Your task to perform on an android device: turn on bluetooth scan Image 0: 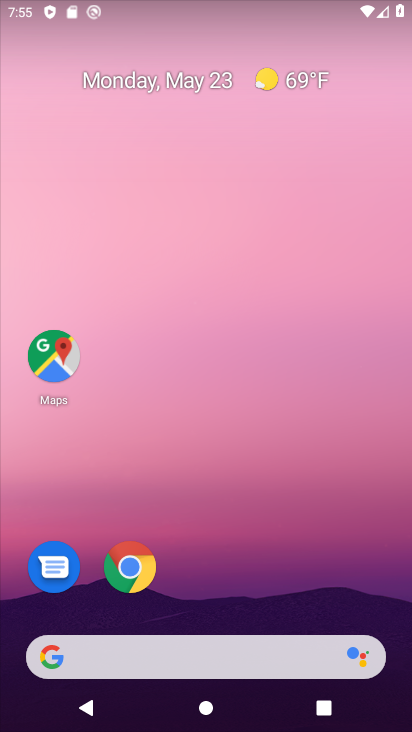
Step 0: drag from (206, 623) to (259, 64)
Your task to perform on an android device: turn on bluetooth scan Image 1: 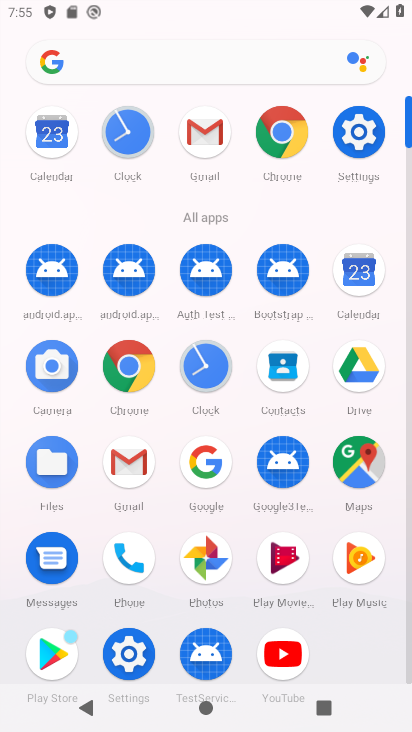
Step 1: click (124, 649)
Your task to perform on an android device: turn on bluetooth scan Image 2: 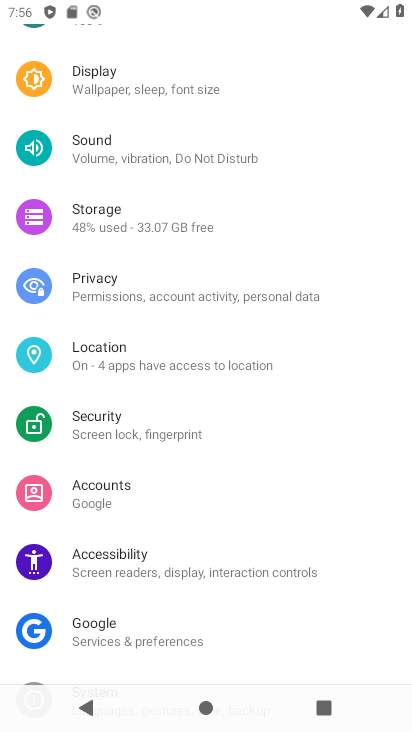
Step 2: click (136, 368)
Your task to perform on an android device: turn on bluetooth scan Image 3: 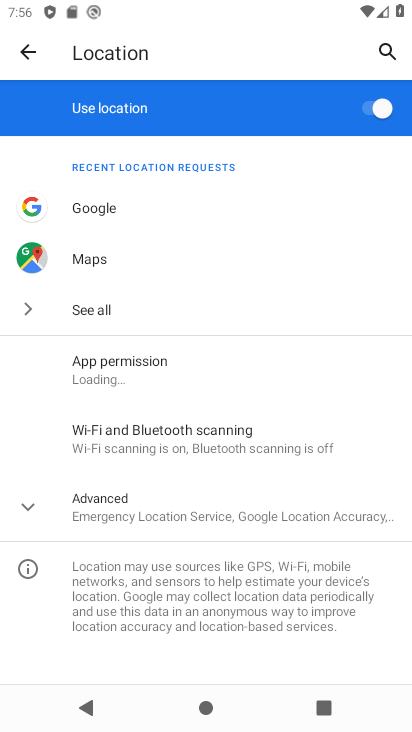
Step 3: click (152, 438)
Your task to perform on an android device: turn on bluetooth scan Image 4: 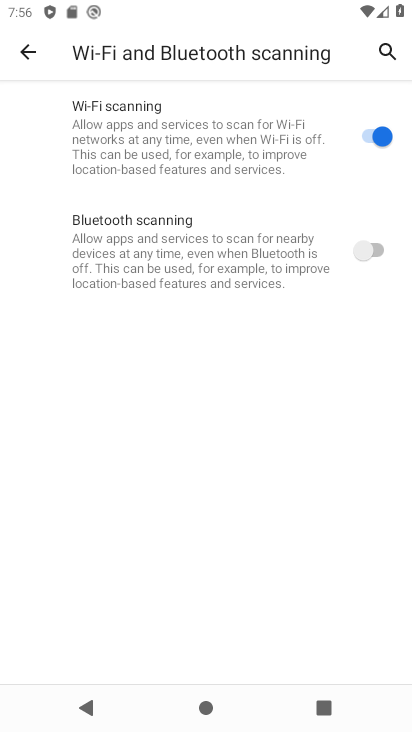
Step 4: click (347, 250)
Your task to perform on an android device: turn on bluetooth scan Image 5: 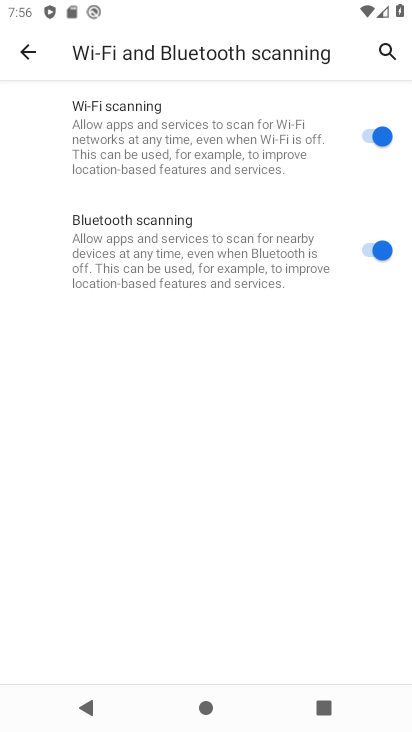
Step 5: task complete